Your task to perform on an android device: change your default location settings in chrome Image 0: 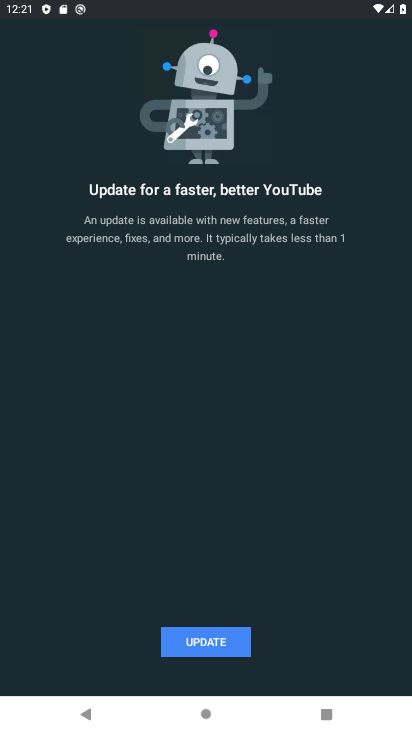
Step 0: press home button
Your task to perform on an android device: change your default location settings in chrome Image 1: 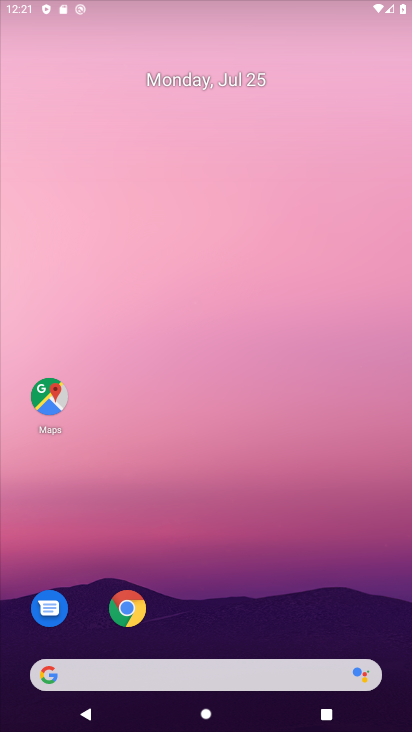
Step 1: click (239, 82)
Your task to perform on an android device: change your default location settings in chrome Image 2: 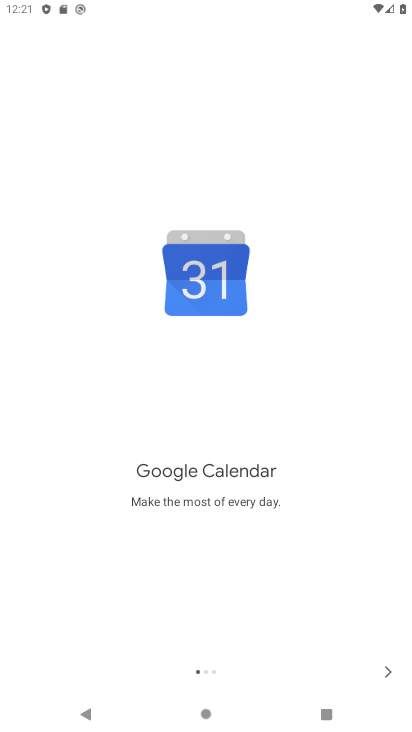
Step 2: press home button
Your task to perform on an android device: change your default location settings in chrome Image 3: 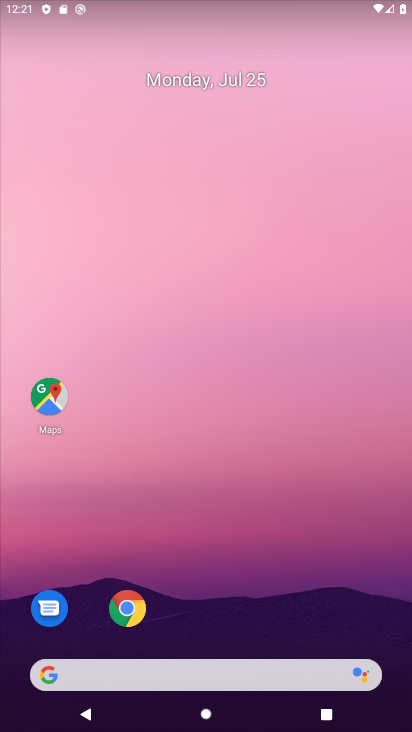
Step 3: drag from (226, 605) to (217, 139)
Your task to perform on an android device: change your default location settings in chrome Image 4: 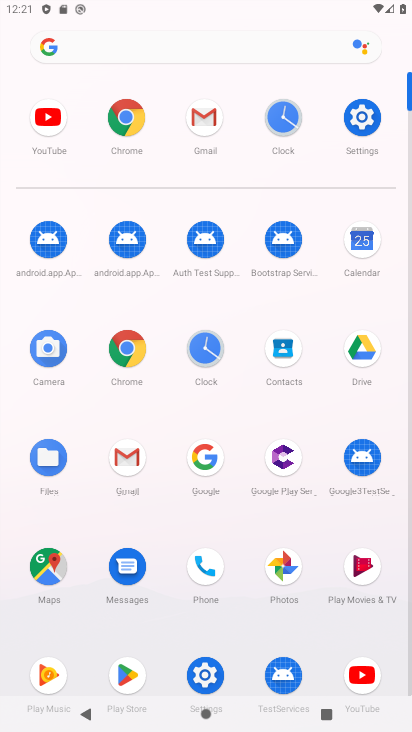
Step 4: click (128, 352)
Your task to perform on an android device: change your default location settings in chrome Image 5: 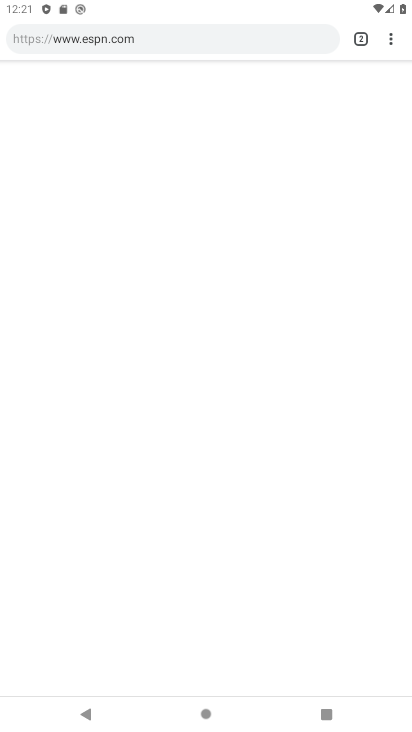
Step 5: click (394, 43)
Your task to perform on an android device: change your default location settings in chrome Image 6: 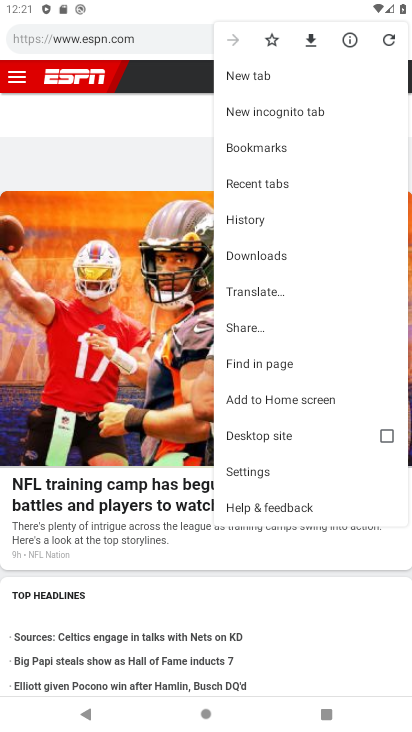
Step 6: click (244, 470)
Your task to perform on an android device: change your default location settings in chrome Image 7: 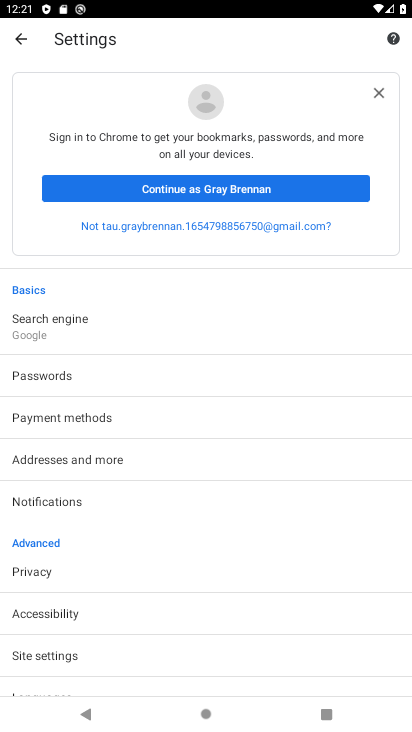
Step 7: click (75, 677)
Your task to perform on an android device: change your default location settings in chrome Image 8: 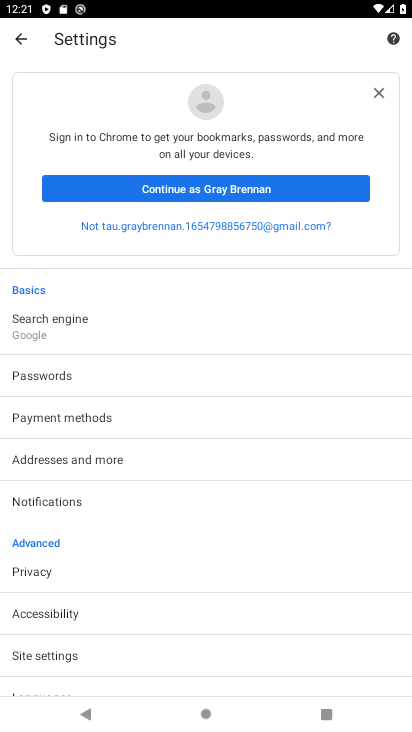
Step 8: click (79, 653)
Your task to perform on an android device: change your default location settings in chrome Image 9: 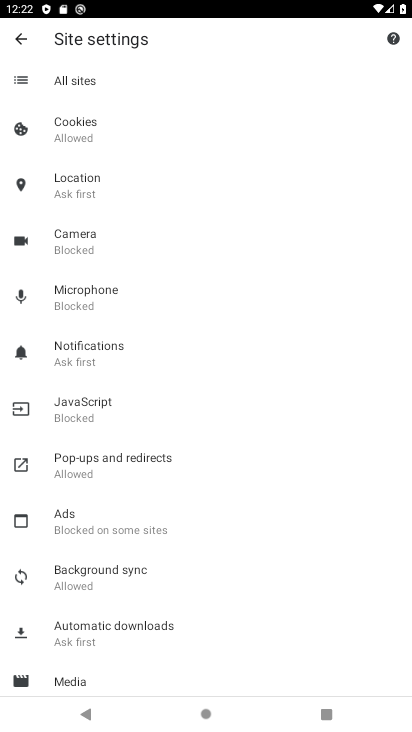
Step 9: click (110, 198)
Your task to perform on an android device: change your default location settings in chrome Image 10: 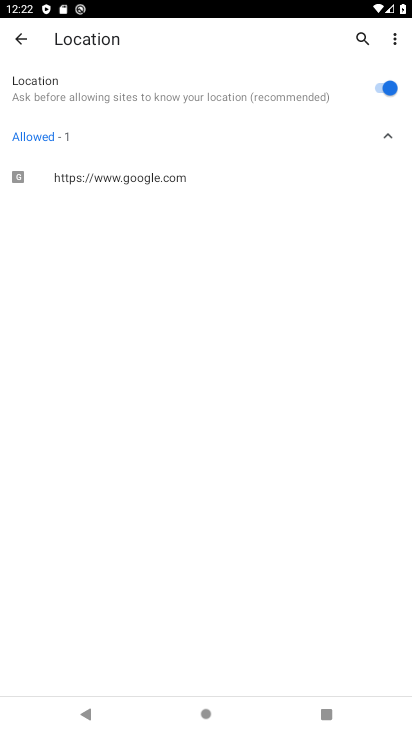
Step 10: click (384, 93)
Your task to perform on an android device: change your default location settings in chrome Image 11: 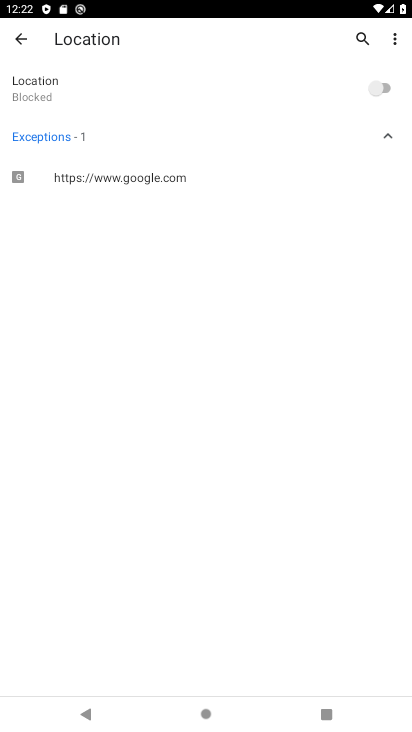
Step 11: task complete